Your task to perform on an android device: What's on my calendar today? Image 0: 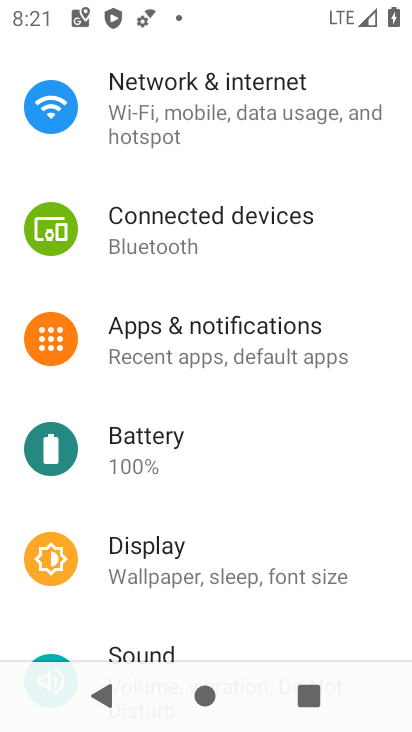
Step 0: drag from (302, 572) to (332, 226)
Your task to perform on an android device: What's on my calendar today? Image 1: 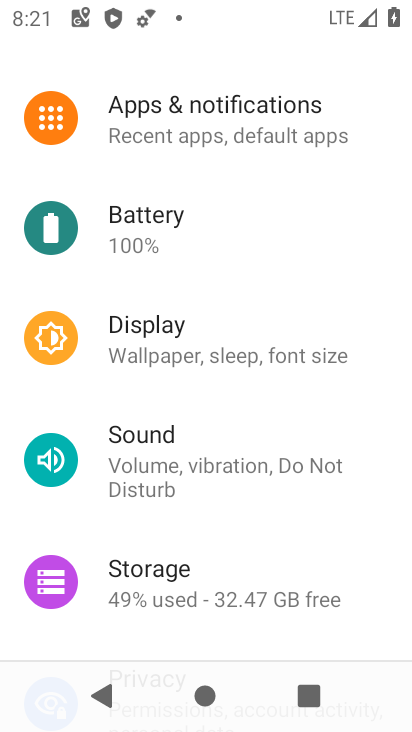
Step 1: drag from (162, 553) to (296, 157)
Your task to perform on an android device: What's on my calendar today? Image 2: 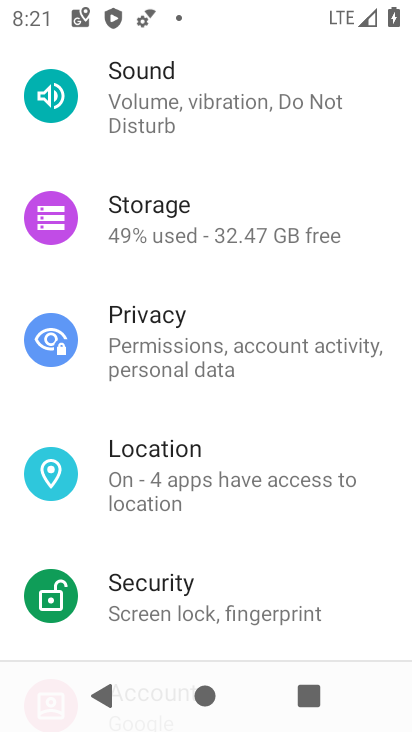
Step 2: press home button
Your task to perform on an android device: What's on my calendar today? Image 3: 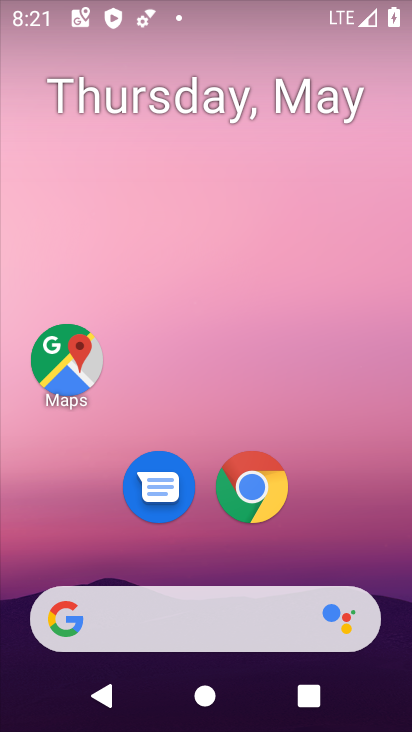
Step 3: drag from (242, 439) to (261, 175)
Your task to perform on an android device: What's on my calendar today? Image 4: 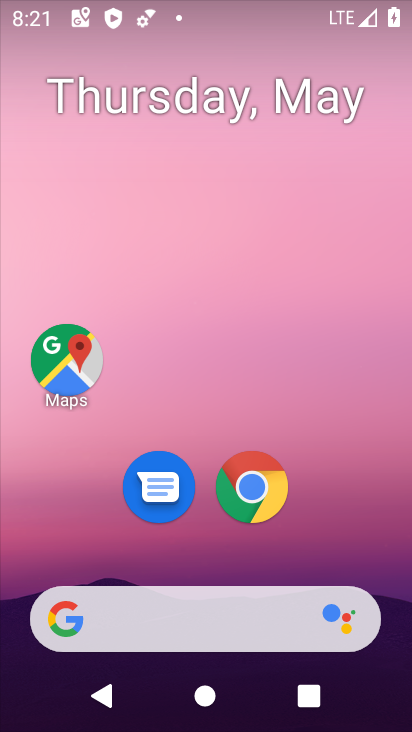
Step 4: drag from (214, 542) to (286, 76)
Your task to perform on an android device: What's on my calendar today? Image 5: 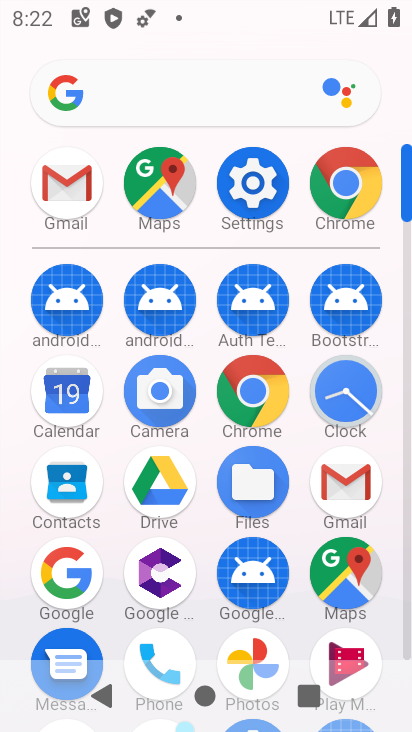
Step 5: click (65, 395)
Your task to perform on an android device: What's on my calendar today? Image 6: 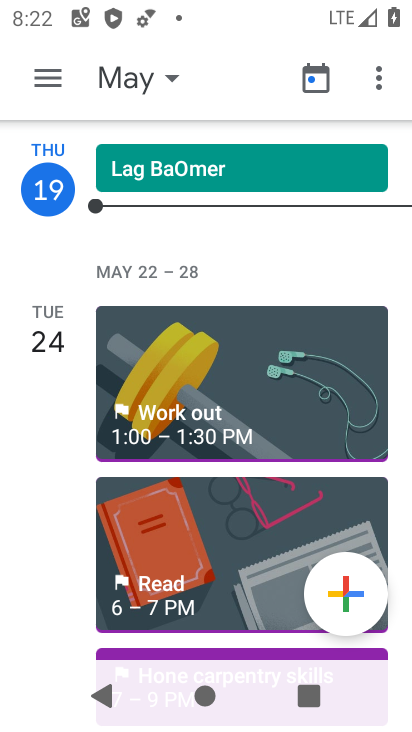
Step 6: drag from (211, 462) to (247, 47)
Your task to perform on an android device: What's on my calendar today? Image 7: 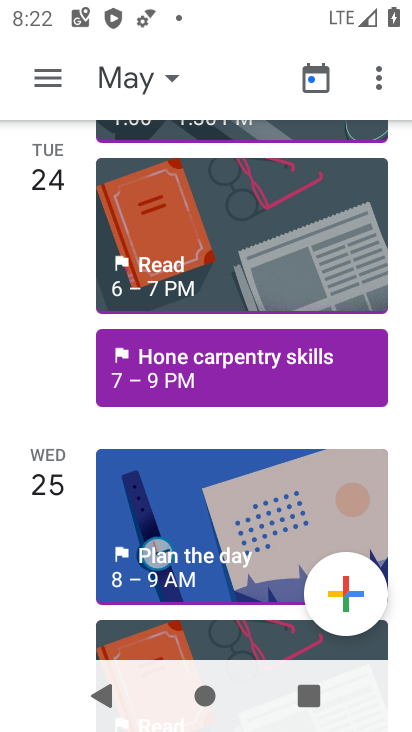
Step 7: click (156, 84)
Your task to perform on an android device: What's on my calendar today? Image 8: 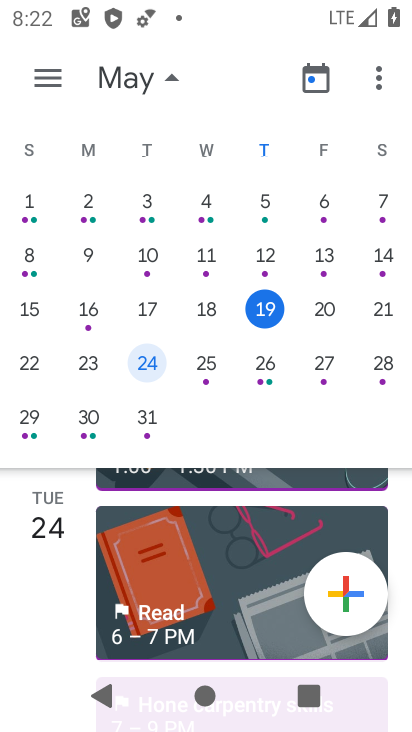
Step 8: click (260, 320)
Your task to perform on an android device: What's on my calendar today? Image 9: 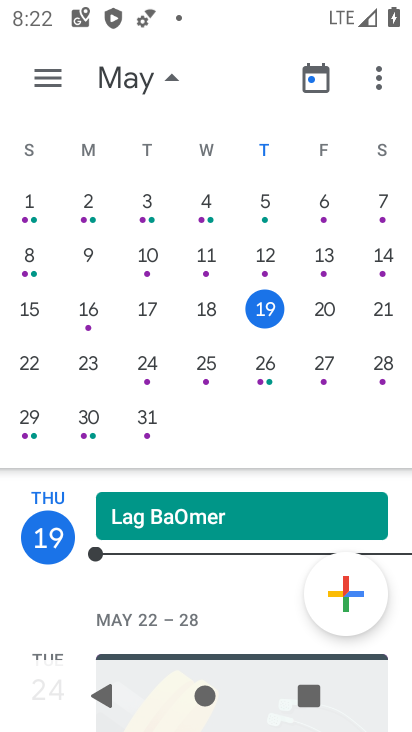
Step 9: task complete